Your task to perform on an android device: turn on sleep mode Image 0: 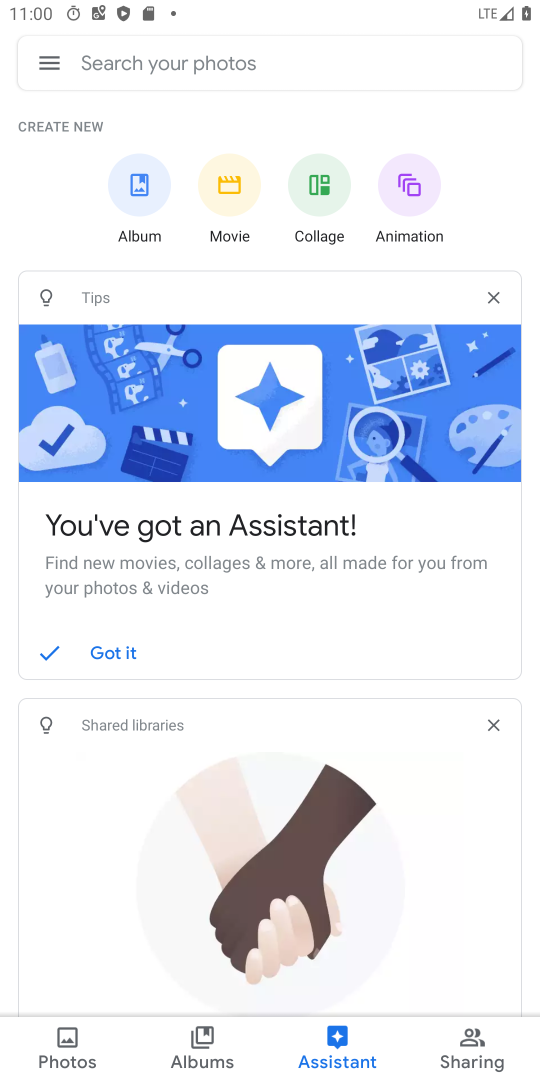
Step 0: task impossible